Your task to perform on an android device: Open Google Chrome and open the bookmarks view Image 0: 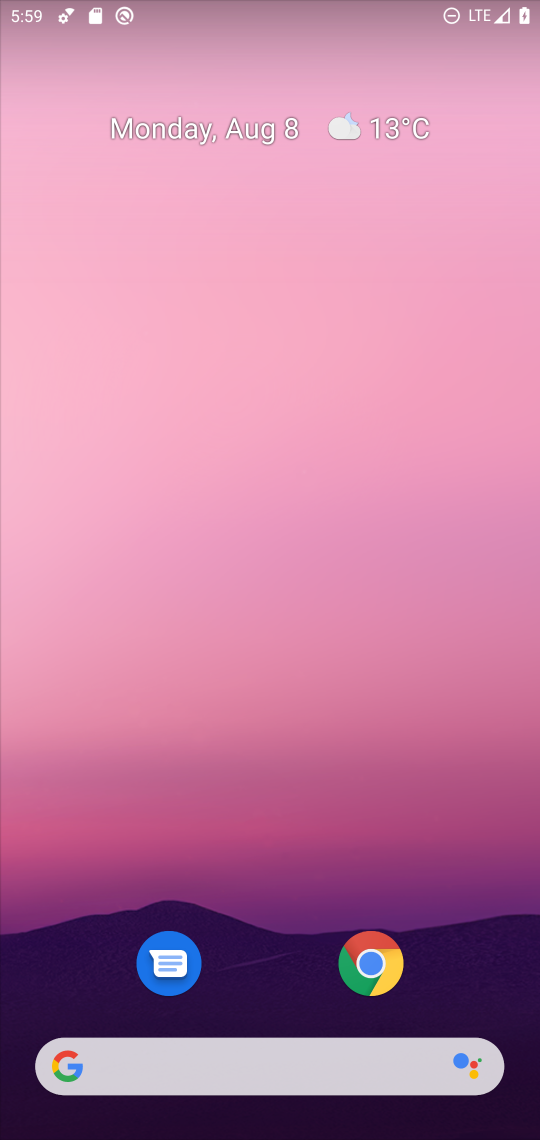
Step 0: press home button
Your task to perform on an android device: Open Google Chrome and open the bookmarks view Image 1: 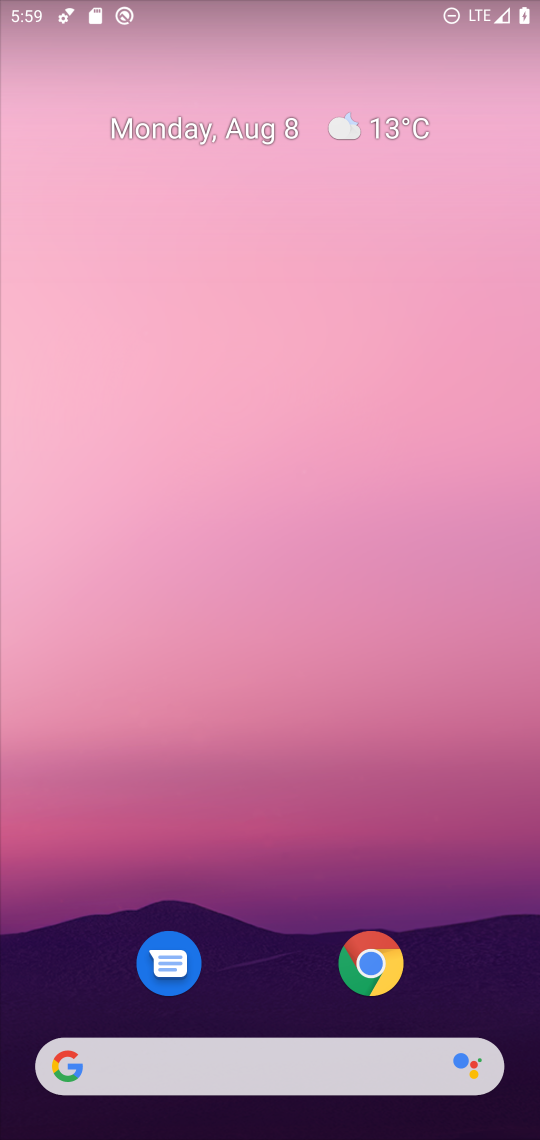
Step 1: click (369, 958)
Your task to perform on an android device: Open Google Chrome and open the bookmarks view Image 2: 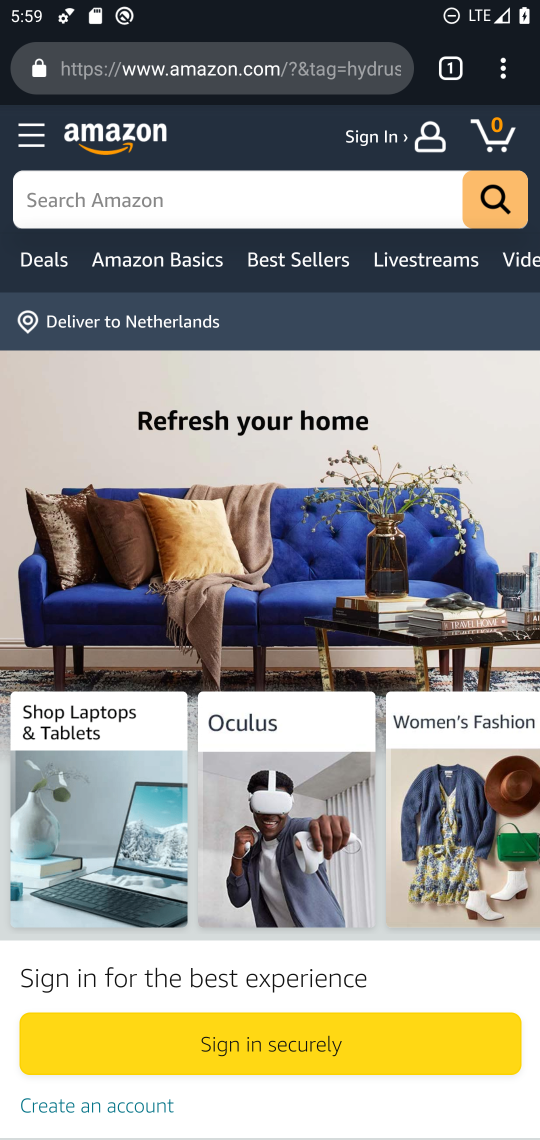
Step 2: click (512, 72)
Your task to perform on an android device: Open Google Chrome and open the bookmarks view Image 3: 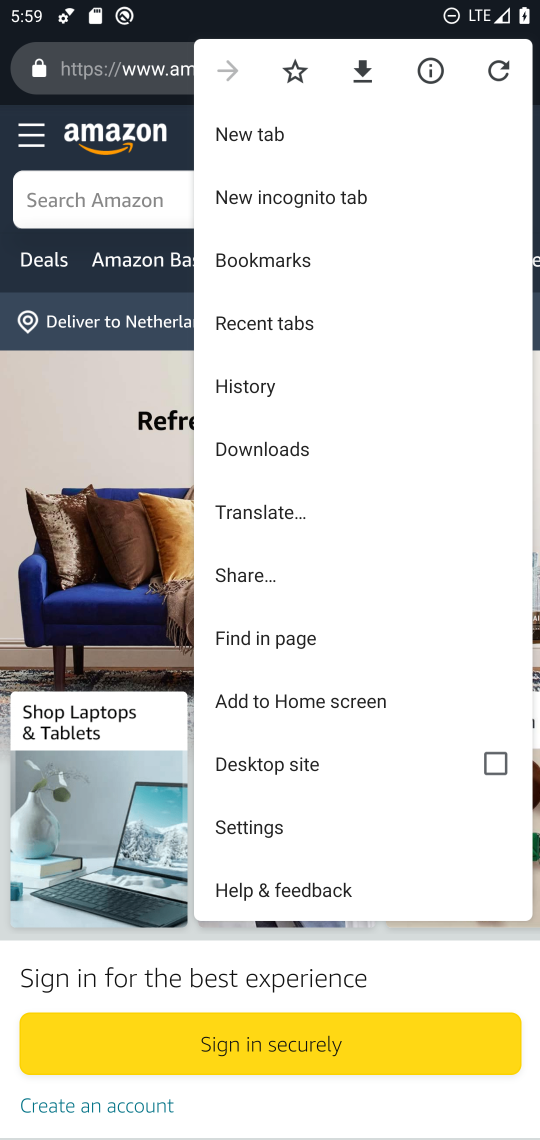
Step 3: click (307, 261)
Your task to perform on an android device: Open Google Chrome and open the bookmarks view Image 4: 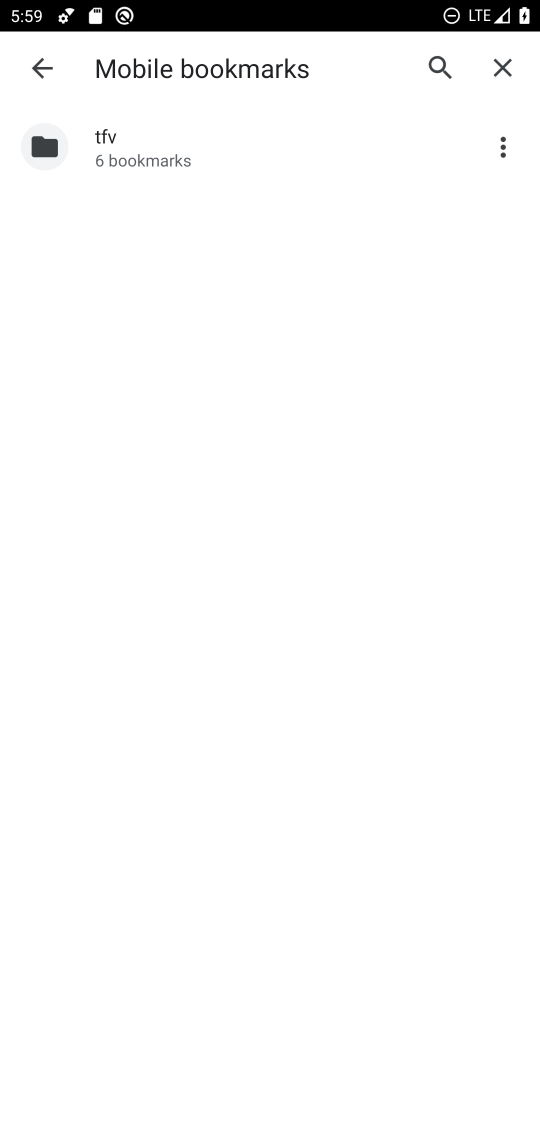
Step 4: click (159, 151)
Your task to perform on an android device: Open Google Chrome and open the bookmarks view Image 5: 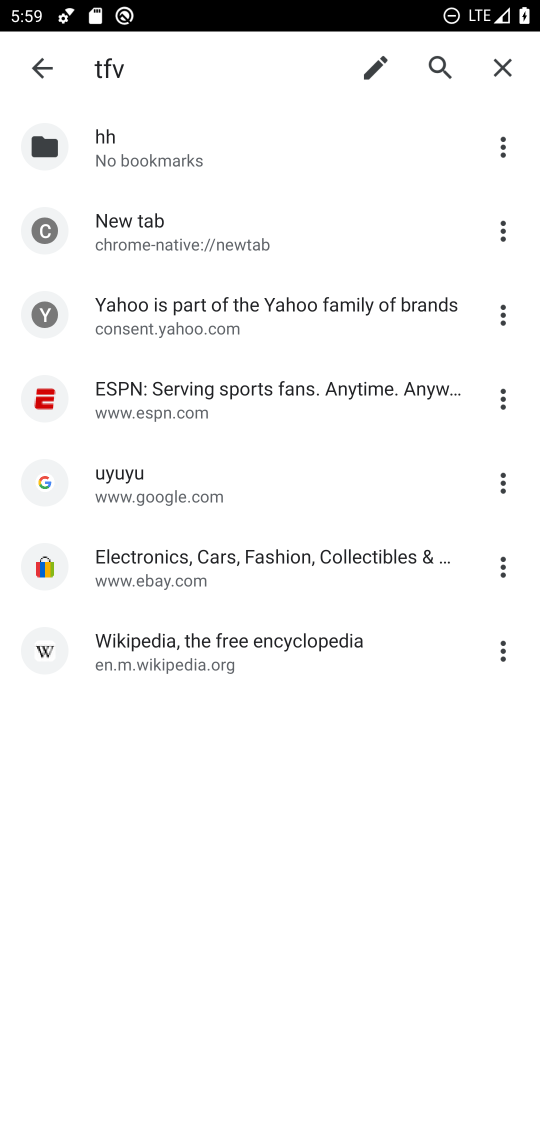
Step 5: click (210, 375)
Your task to perform on an android device: Open Google Chrome and open the bookmarks view Image 6: 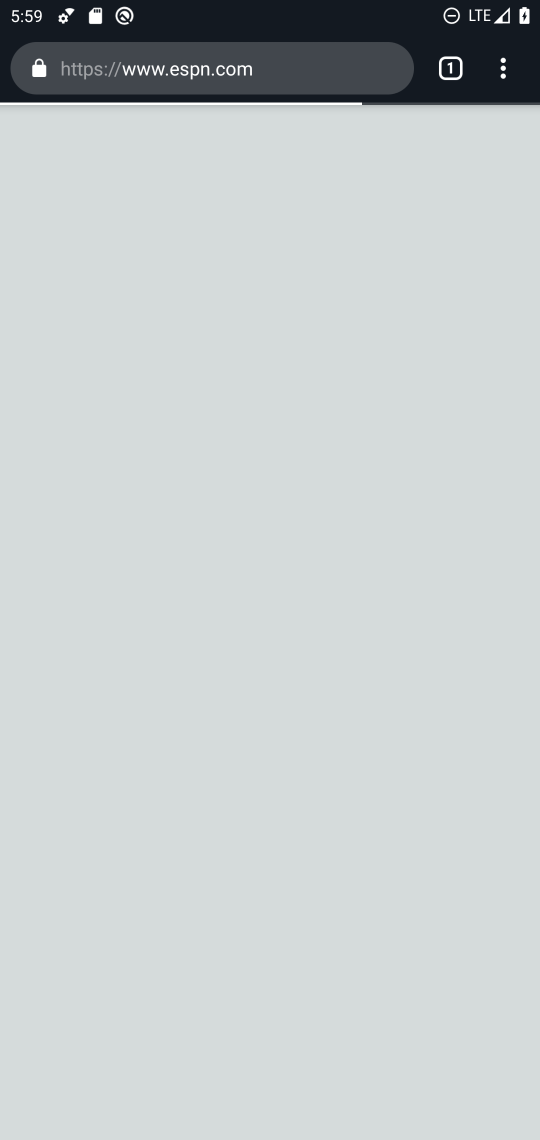
Step 6: task complete